Your task to perform on an android device: What's the price of the Sony TV? Image 0: 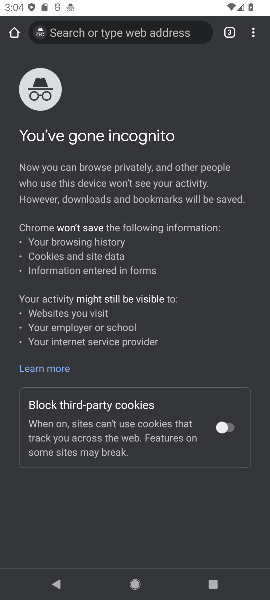
Step 0: click (67, 38)
Your task to perform on an android device: What's the price of the Sony TV? Image 1: 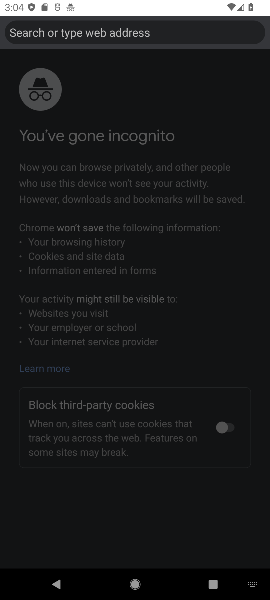
Step 1: type "What's the price of the Sony TV?"
Your task to perform on an android device: What's the price of the Sony TV? Image 2: 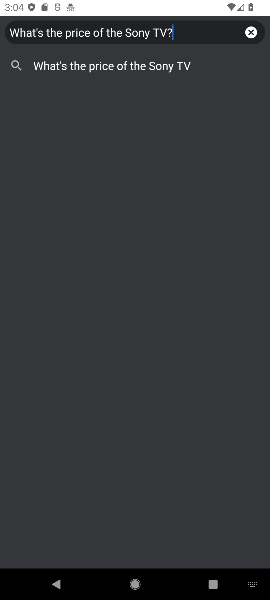
Step 2: type ""
Your task to perform on an android device: What's the price of the Sony TV? Image 3: 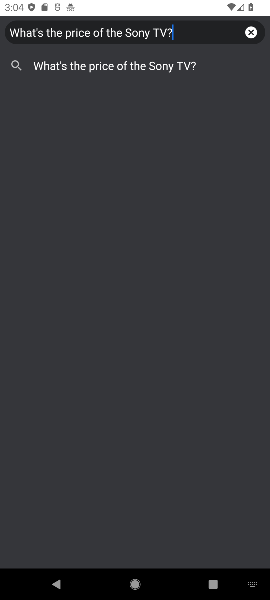
Step 3: click (61, 71)
Your task to perform on an android device: What's the price of the Sony TV? Image 4: 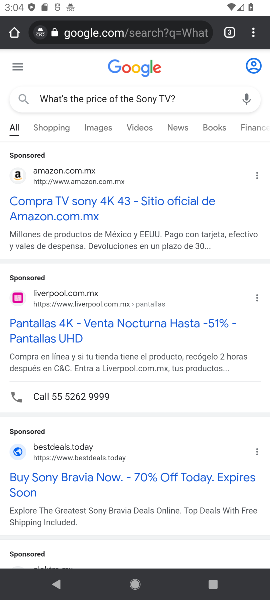
Step 4: task complete